Your task to perform on an android device: search for starred emails in the gmail app Image 0: 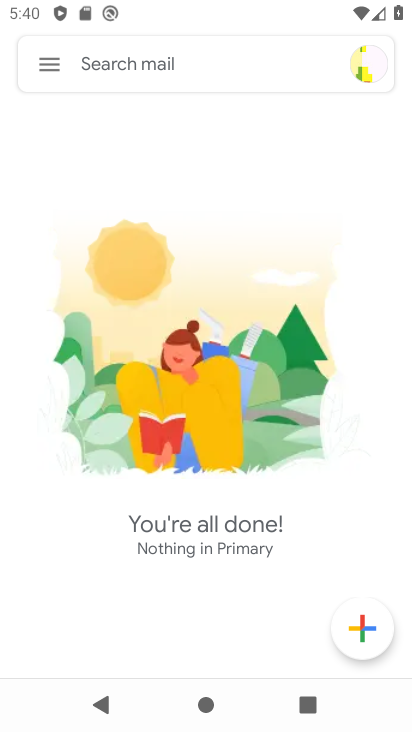
Step 0: click (44, 65)
Your task to perform on an android device: search for starred emails in the gmail app Image 1: 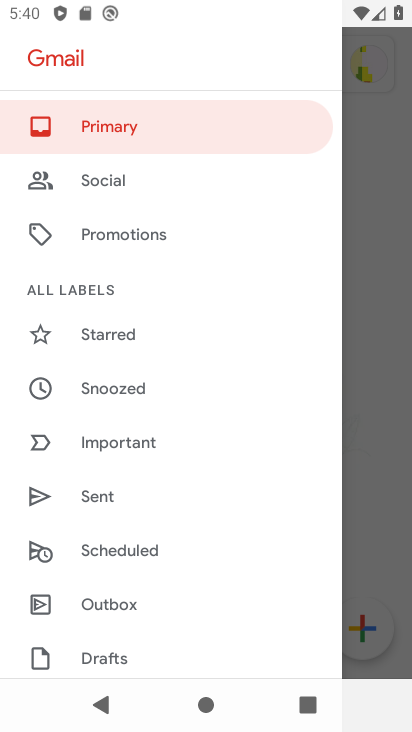
Step 1: click (131, 331)
Your task to perform on an android device: search for starred emails in the gmail app Image 2: 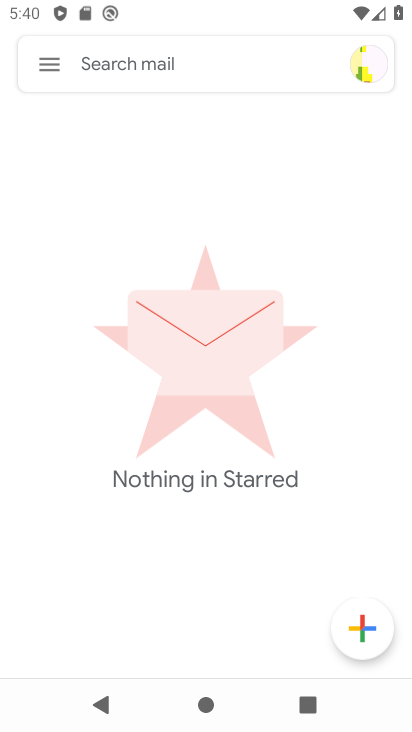
Step 2: task complete